Your task to perform on an android device: turn off notifications settings in the gmail app Image 0: 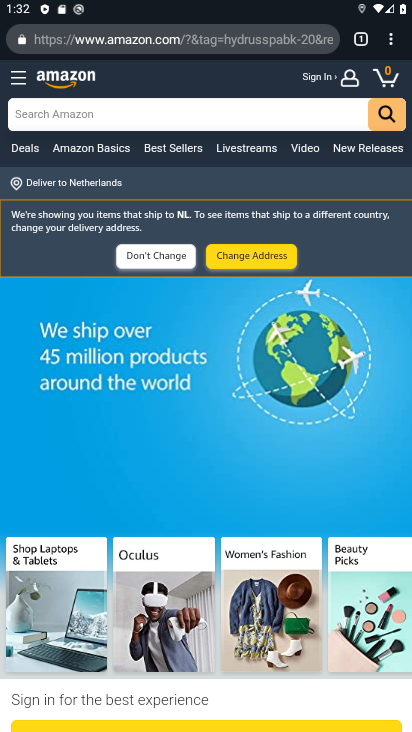
Step 0: press home button
Your task to perform on an android device: turn off notifications settings in the gmail app Image 1: 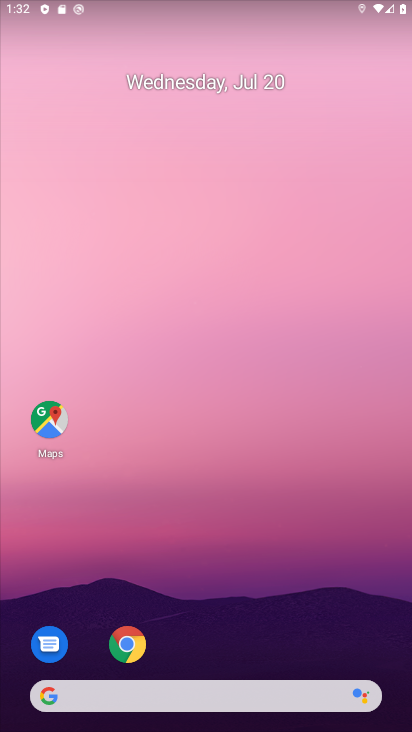
Step 1: drag from (311, 638) to (359, 20)
Your task to perform on an android device: turn off notifications settings in the gmail app Image 2: 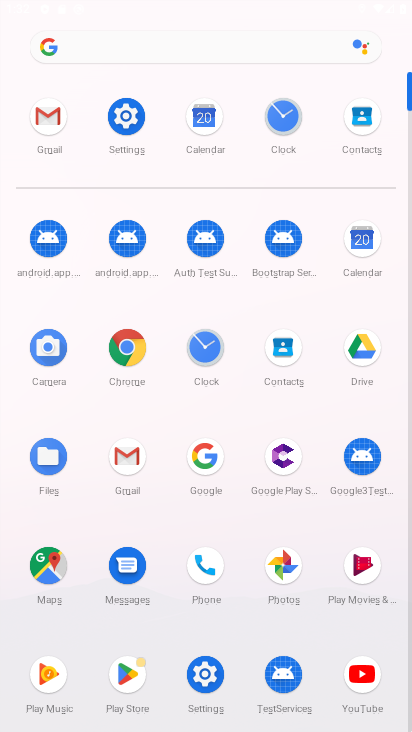
Step 2: click (132, 450)
Your task to perform on an android device: turn off notifications settings in the gmail app Image 3: 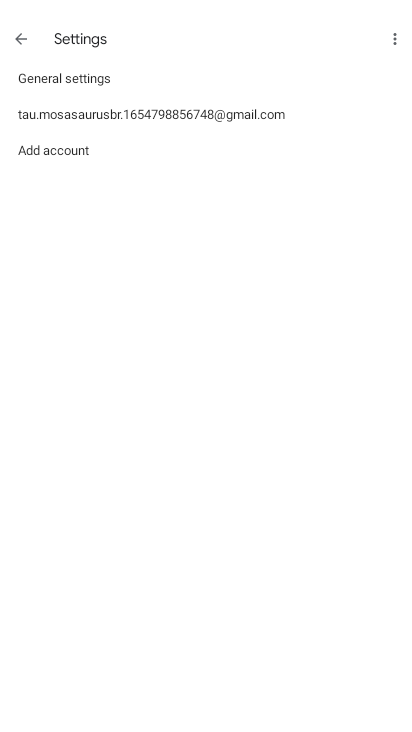
Step 3: click (154, 116)
Your task to perform on an android device: turn off notifications settings in the gmail app Image 4: 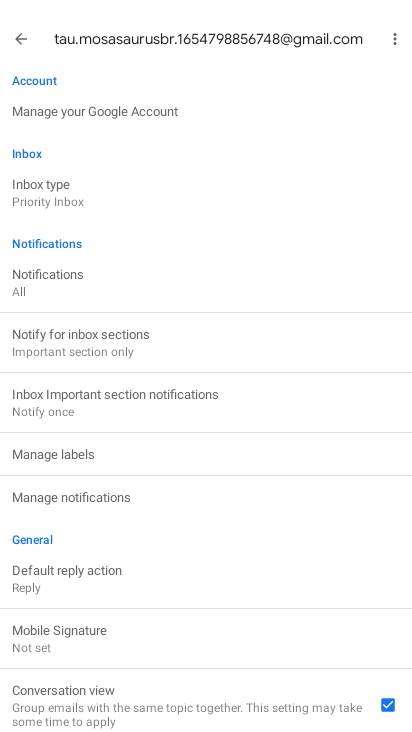
Step 4: click (76, 496)
Your task to perform on an android device: turn off notifications settings in the gmail app Image 5: 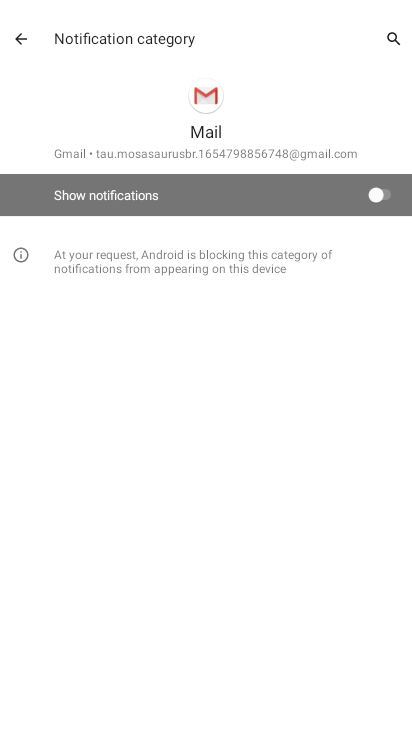
Step 5: task complete